Your task to perform on an android device: allow notifications from all sites in the chrome app Image 0: 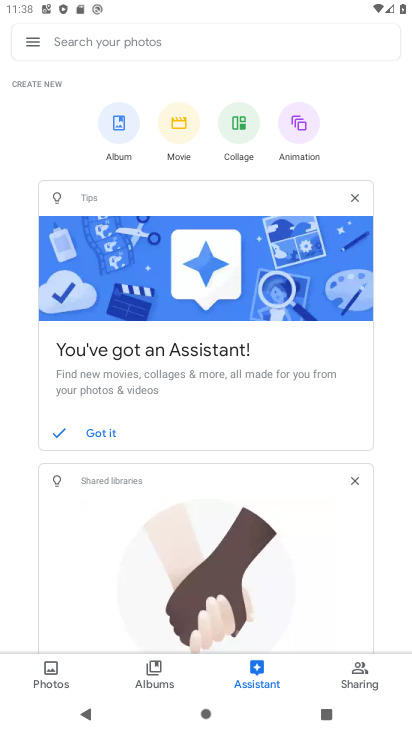
Step 0: press home button
Your task to perform on an android device: allow notifications from all sites in the chrome app Image 1: 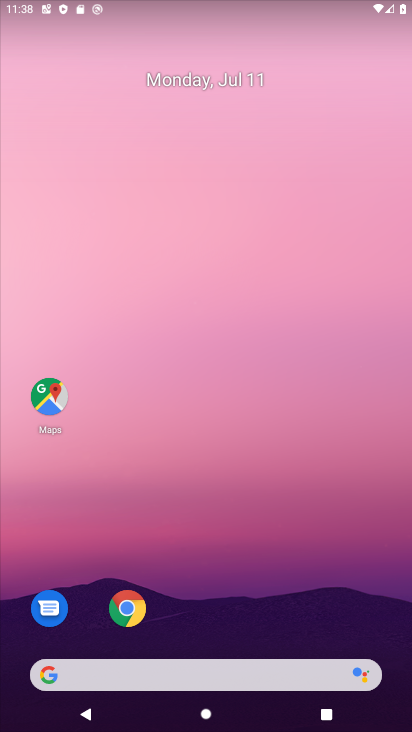
Step 1: click (129, 593)
Your task to perform on an android device: allow notifications from all sites in the chrome app Image 2: 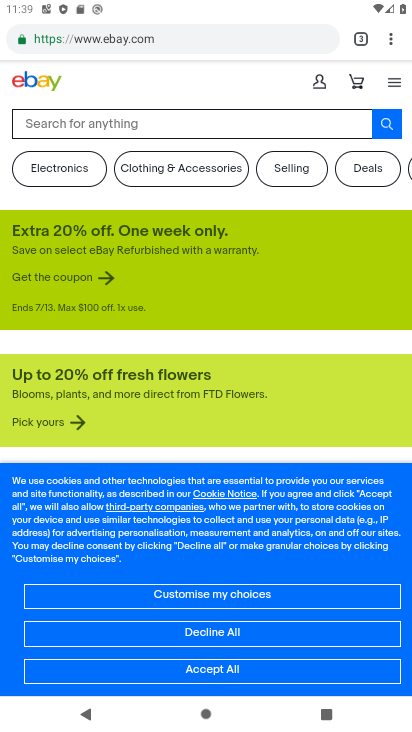
Step 2: click (401, 31)
Your task to perform on an android device: allow notifications from all sites in the chrome app Image 3: 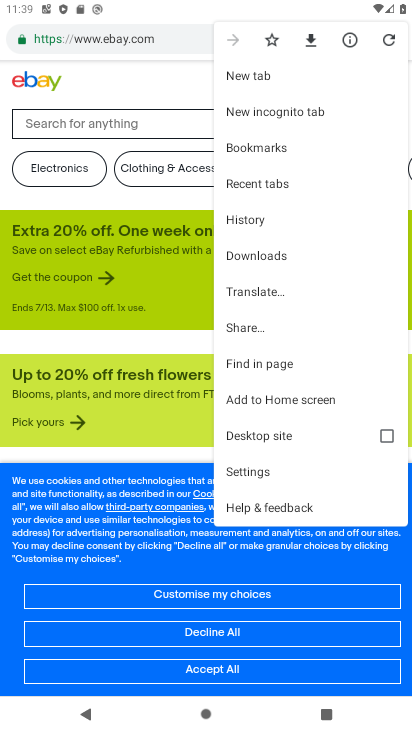
Step 3: click (236, 480)
Your task to perform on an android device: allow notifications from all sites in the chrome app Image 4: 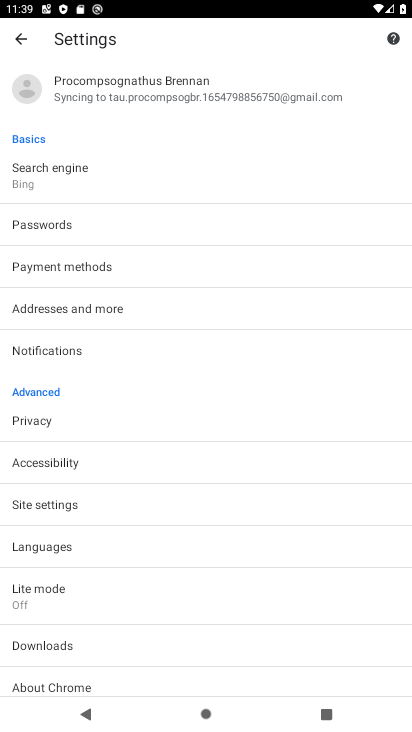
Step 4: click (138, 343)
Your task to perform on an android device: allow notifications from all sites in the chrome app Image 5: 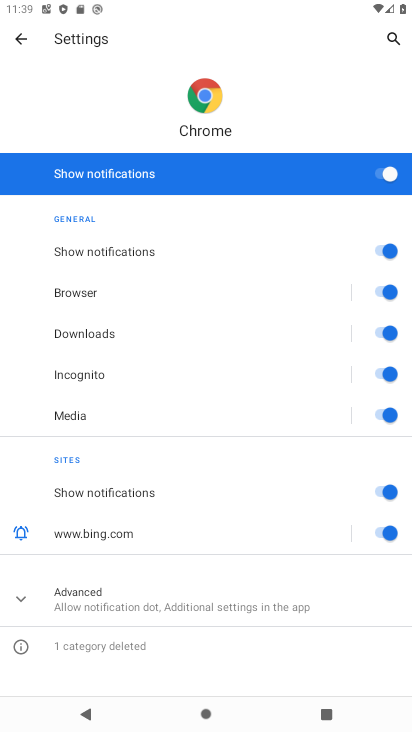
Step 5: task complete